Your task to perform on an android device: all mails in gmail Image 0: 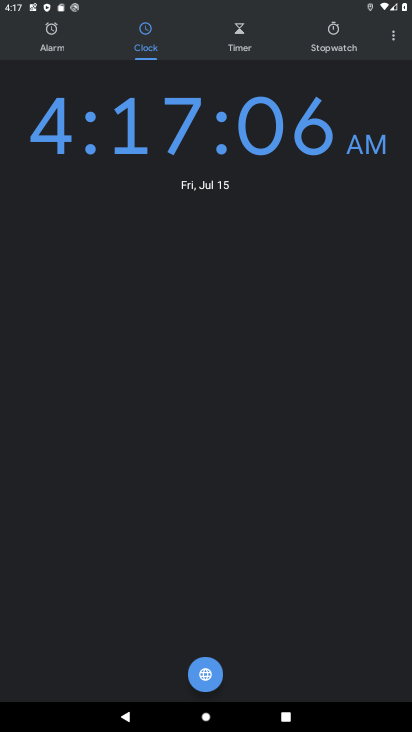
Step 0: press home button
Your task to perform on an android device: all mails in gmail Image 1: 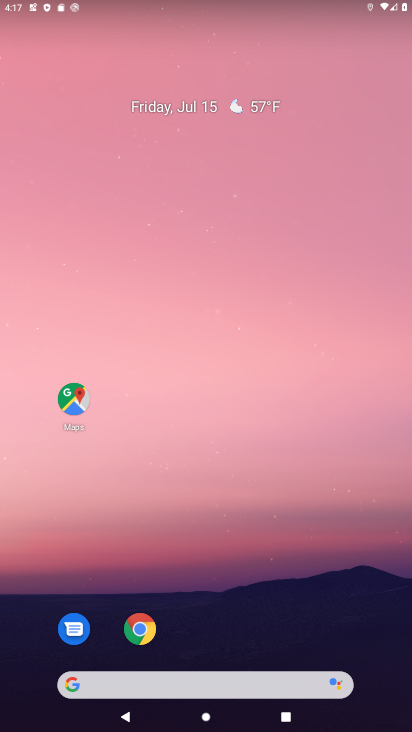
Step 1: drag from (228, 630) to (343, 71)
Your task to perform on an android device: all mails in gmail Image 2: 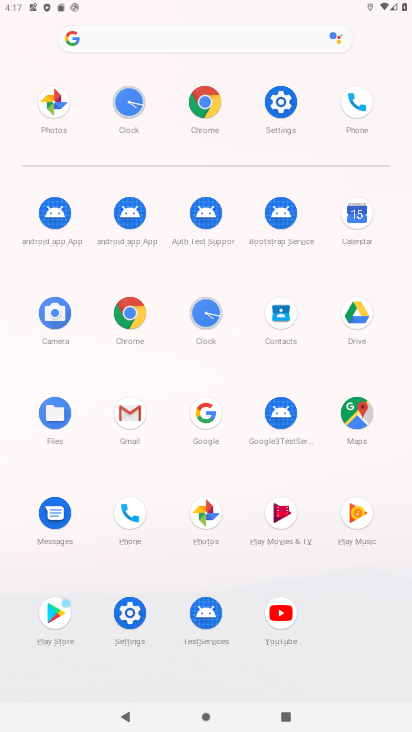
Step 2: click (131, 413)
Your task to perform on an android device: all mails in gmail Image 3: 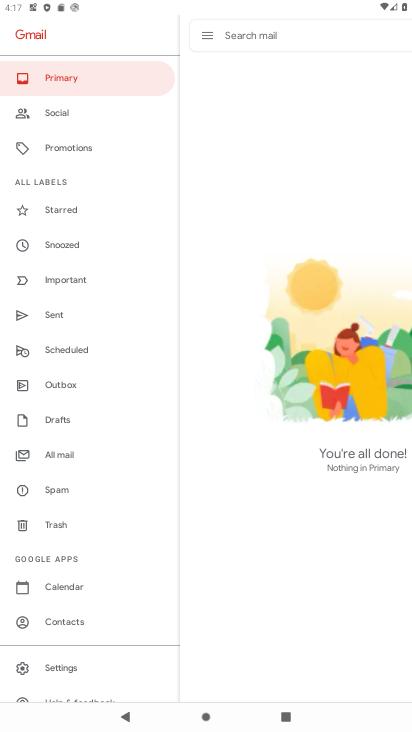
Step 3: click (63, 454)
Your task to perform on an android device: all mails in gmail Image 4: 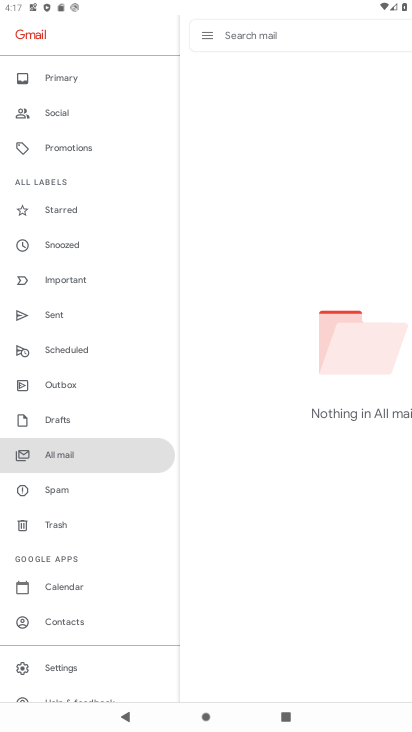
Step 4: click (58, 459)
Your task to perform on an android device: all mails in gmail Image 5: 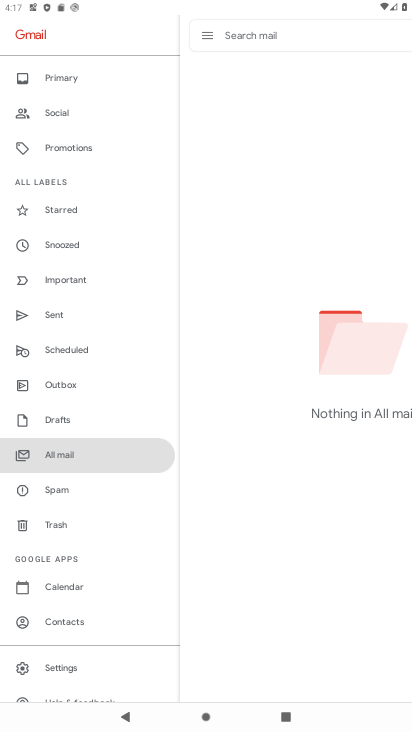
Step 5: task complete